Your task to perform on an android device: delete browsing data in the chrome app Image 0: 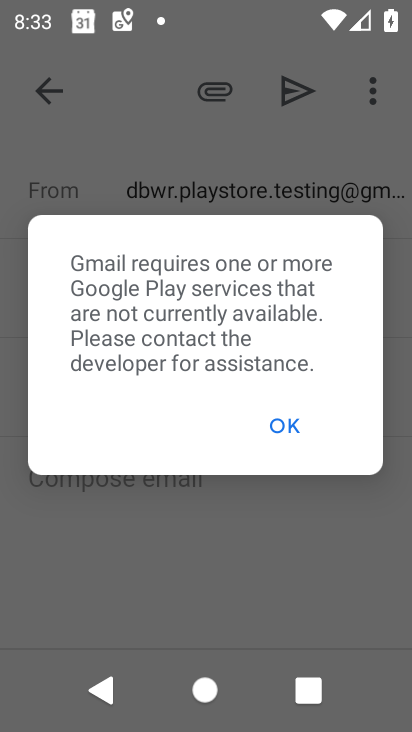
Step 0: press home button
Your task to perform on an android device: delete browsing data in the chrome app Image 1: 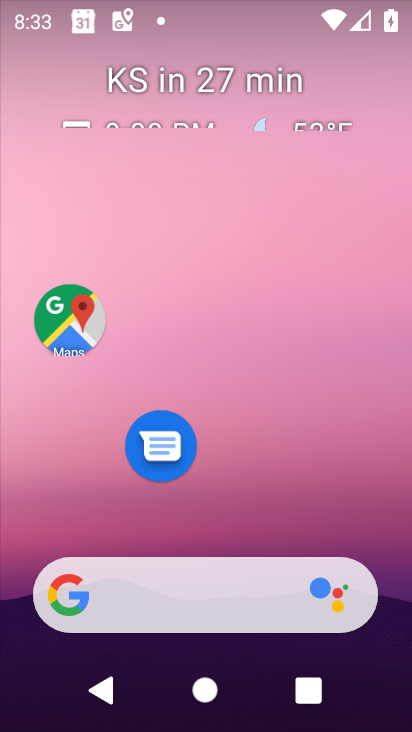
Step 1: drag from (224, 550) to (225, 34)
Your task to perform on an android device: delete browsing data in the chrome app Image 2: 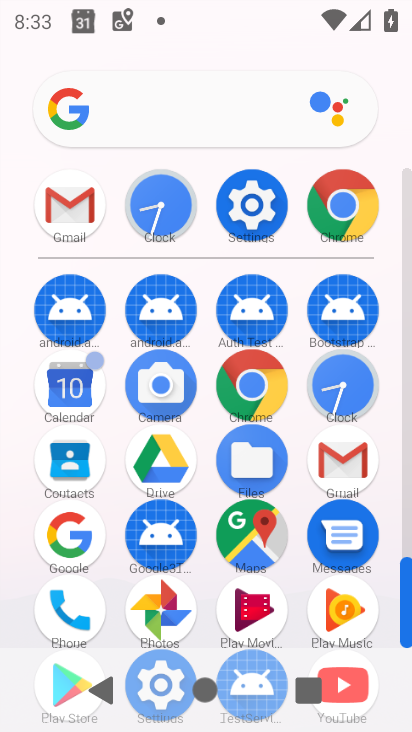
Step 2: click (340, 195)
Your task to perform on an android device: delete browsing data in the chrome app Image 3: 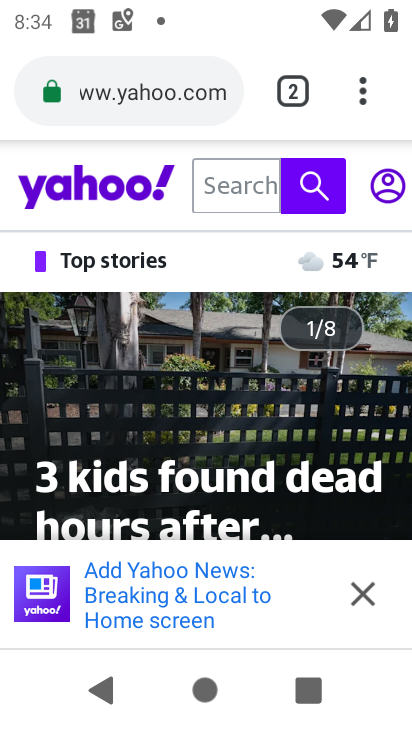
Step 3: click (363, 103)
Your task to perform on an android device: delete browsing data in the chrome app Image 4: 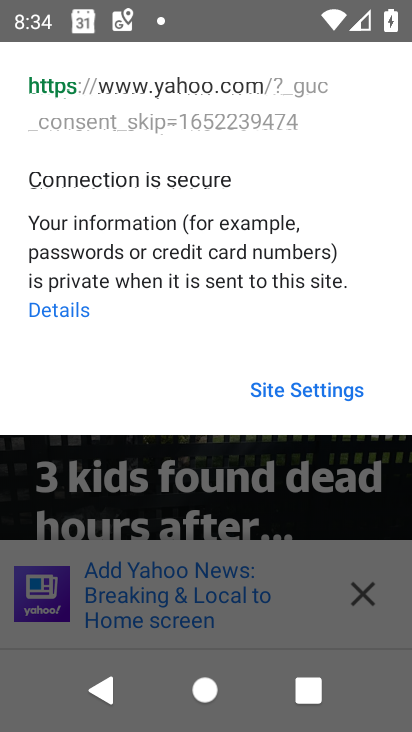
Step 4: click (92, 692)
Your task to perform on an android device: delete browsing data in the chrome app Image 5: 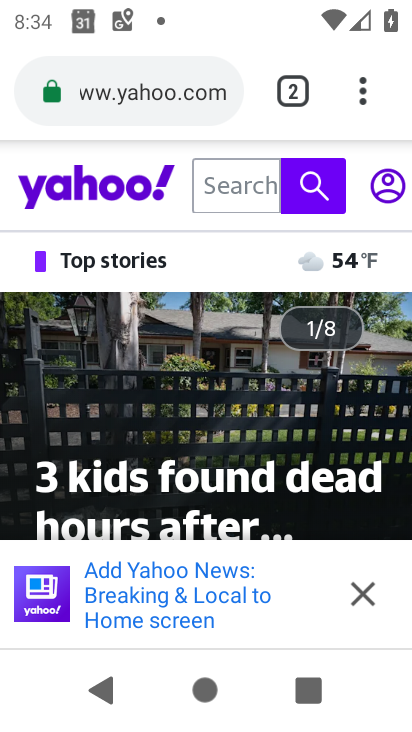
Step 5: drag from (368, 91) to (217, 498)
Your task to perform on an android device: delete browsing data in the chrome app Image 6: 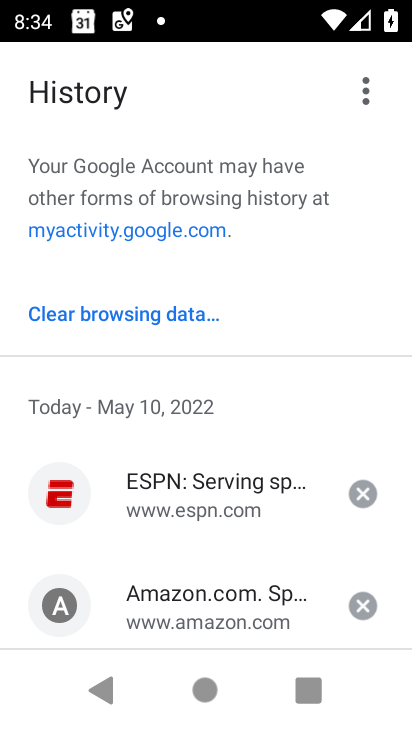
Step 6: click (78, 308)
Your task to perform on an android device: delete browsing data in the chrome app Image 7: 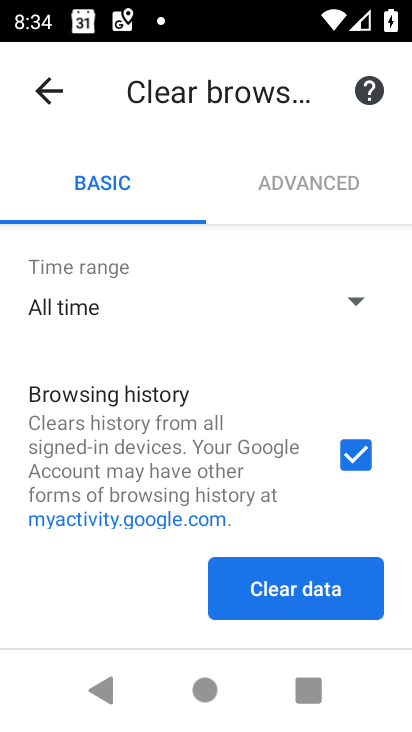
Step 7: click (260, 582)
Your task to perform on an android device: delete browsing data in the chrome app Image 8: 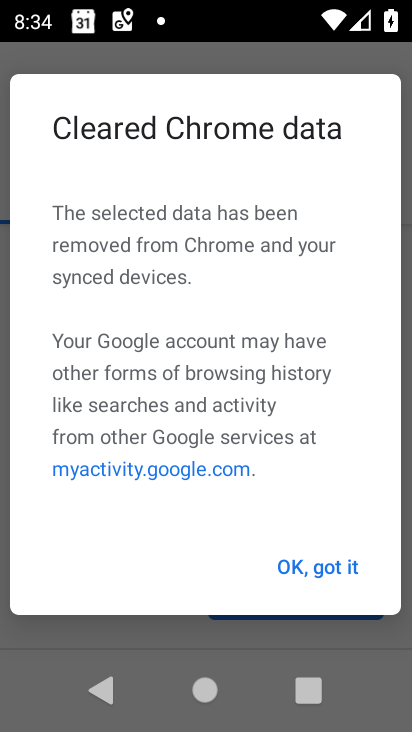
Step 8: click (313, 571)
Your task to perform on an android device: delete browsing data in the chrome app Image 9: 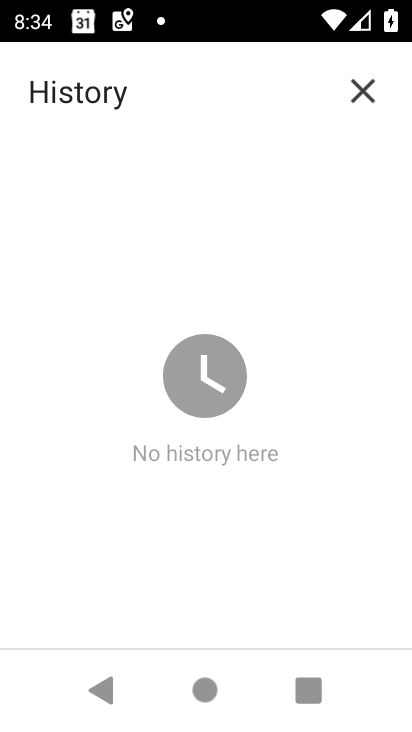
Step 9: task complete